Your task to perform on an android device: add a contact in the contacts app Image 0: 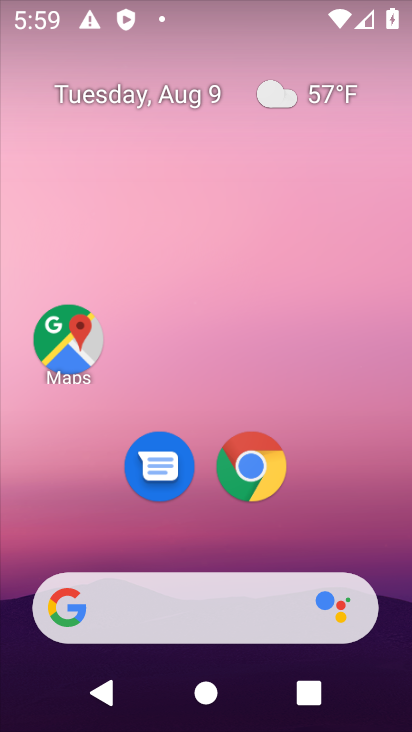
Step 0: drag from (182, 465) to (216, 56)
Your task to perform on an android device: add a contact in the contacts app Image 1: 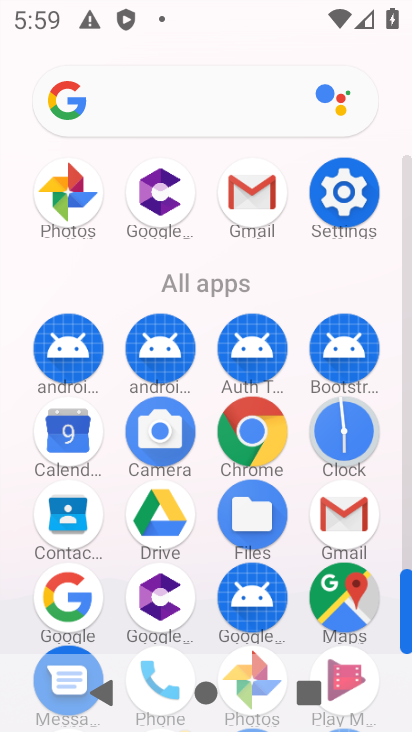
Step 1: drag from (215, 513) to (204, 261)
Your task to perform on an android device: add a contact in the contacts app Image 2: 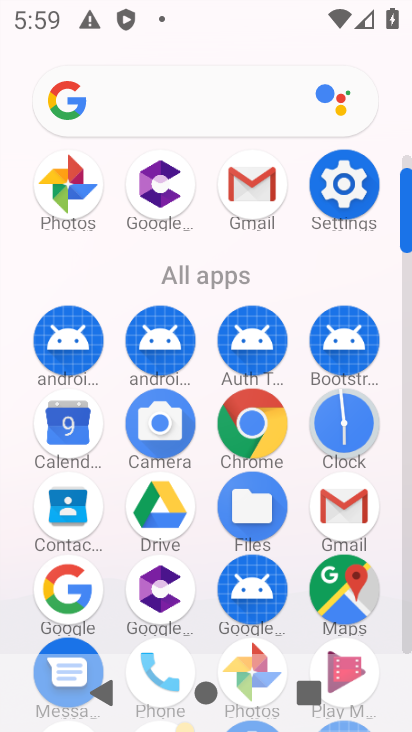
Step 2: drag from (206, 595) to (212, 359)
Your task to perform on an android device: add a contact in the contacts app Image 3: 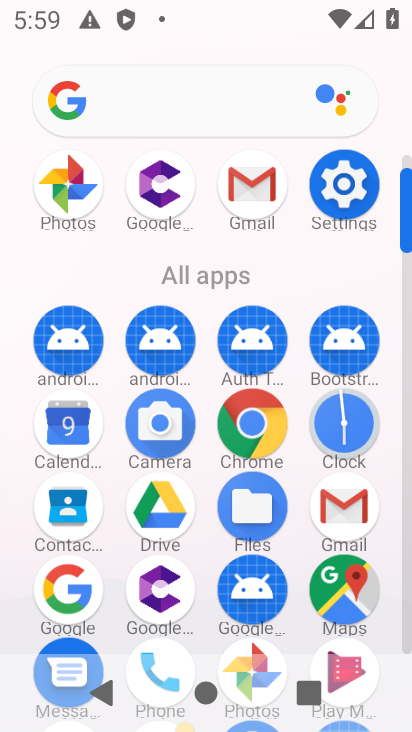
Step 3: drag from (200, 595) to (213, 328)
Your task to perform on an android device: add a contact in the contacts app Image 4: 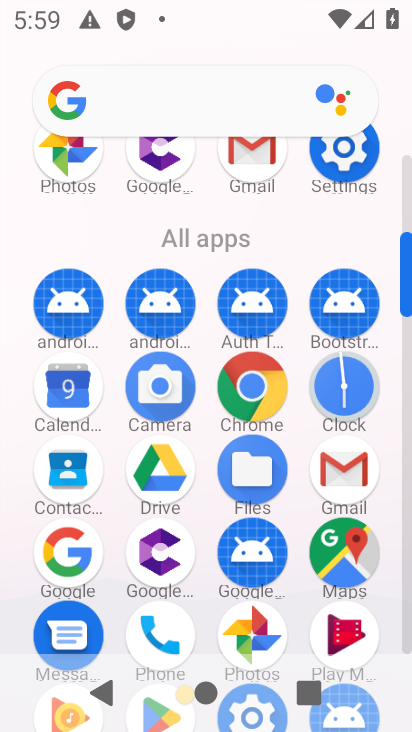
Step 4: drag from (201, 588) to (242, 267)
Your task to perform on an android device: add a contact in the contacts app Image 5: 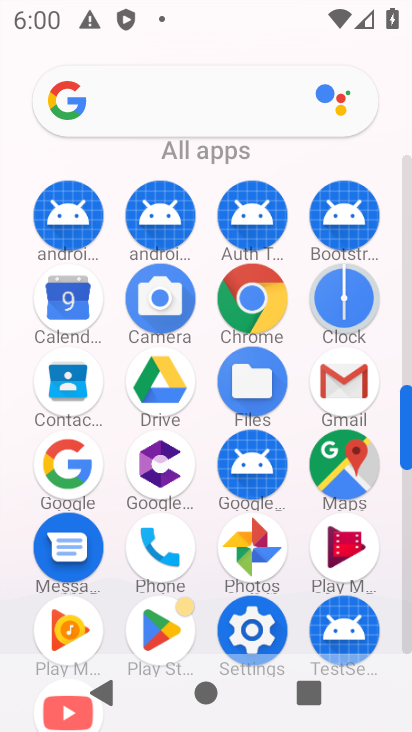
Step 5: click (62, 370)
Your task to perform on an android device: add a contact in the contacts app Image 6: 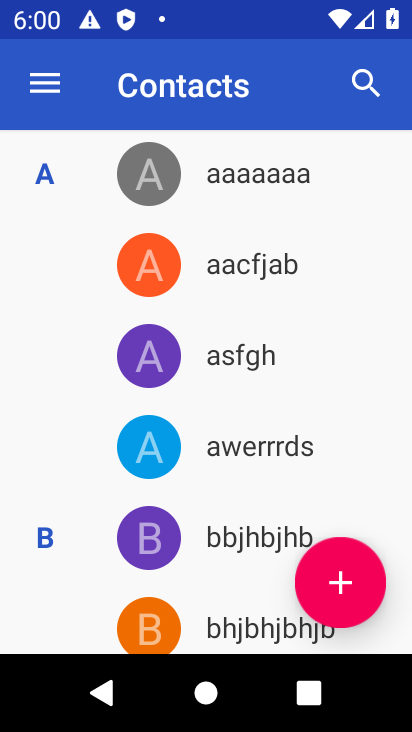
Step 6: click (368, 589)
Your task to perform on an android device: add a contact in the contacts app Image 7: 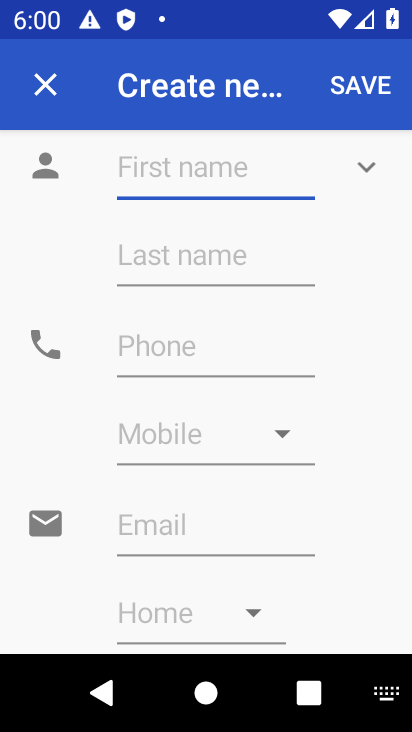
Step 7: type "Farukh"
Your task to perform on an android device: add a contact in the contacts app Image 8: 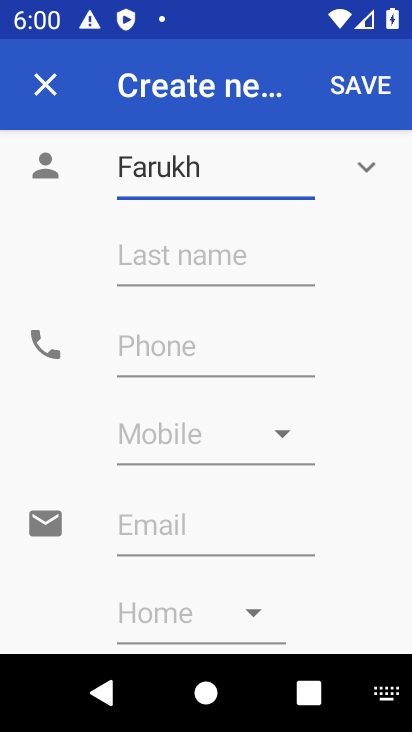
Step 8: click (258, 267)
Your task to perform on an android device: add a contact in the contacts app Image 9: 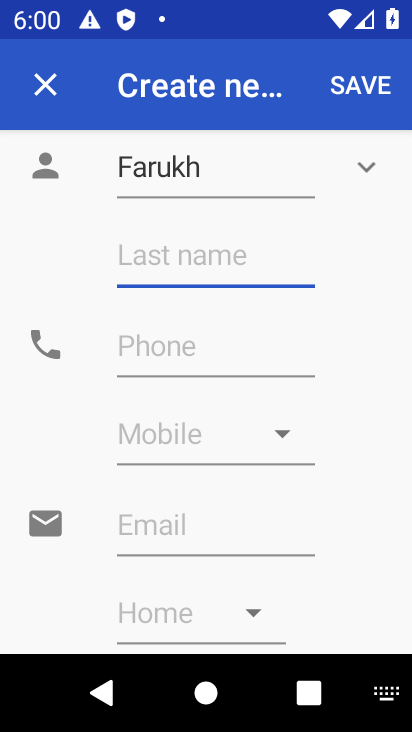
Step 9: type "Ablullah"
Your task to perform on an android device: add a contact in the contacts app Image 10: 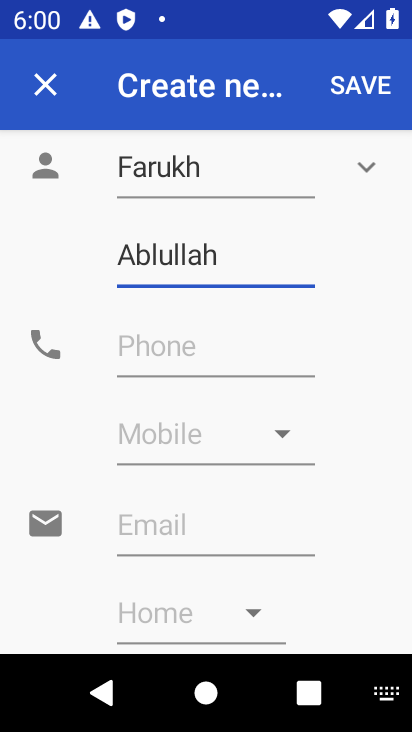
Step 10: click (199, 345)
Your task to perform on an android device: add a contact in the contacts app Image 11: 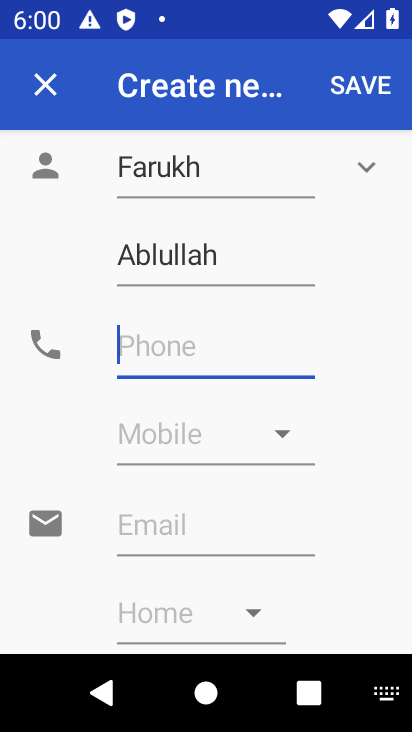
Step 11: type "7899870000"
Your task to perform on an android device: add a contact in the contacts app Image 12: 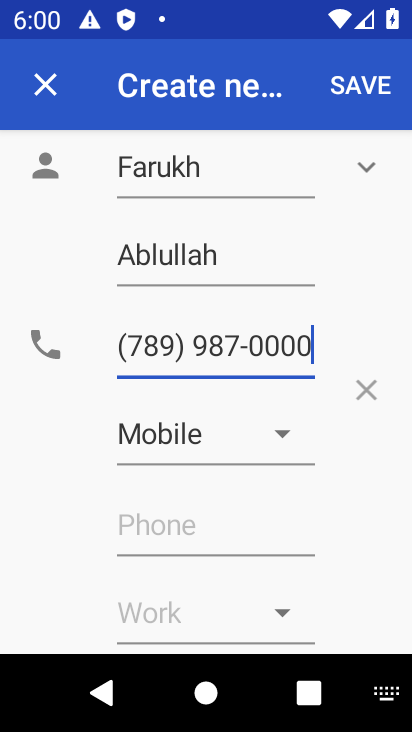
Step 12: click (364, 83)
Your task to perform on an android device: add a contact in the contacts app Image 13: 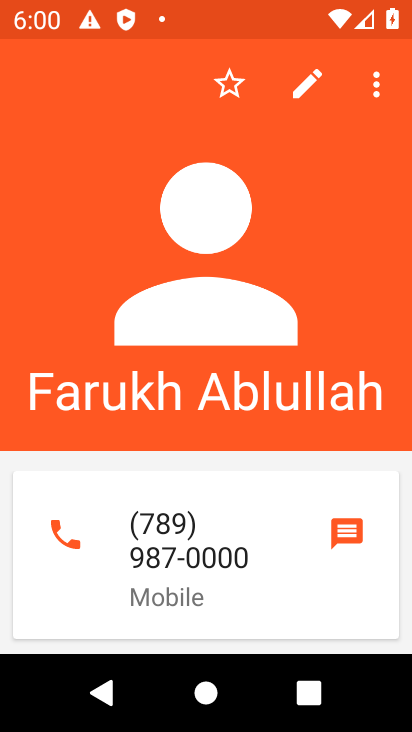
Step 13: task complete